Your task to perform on an android device: Is it going to rain today? Image 0: 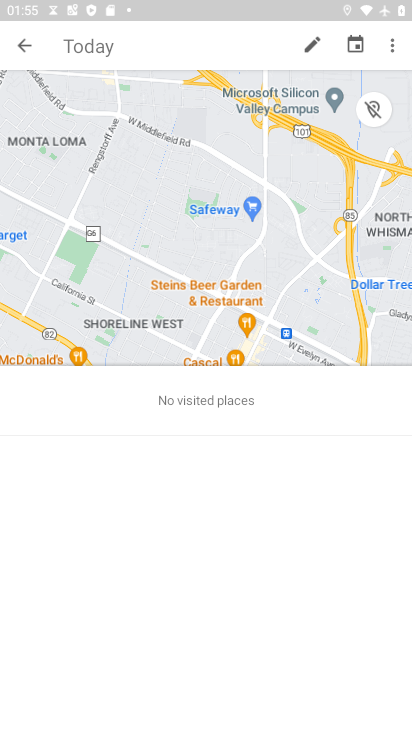
Step 0: press home button
Your task to perform on an android device: Is it going to rain today? Image 1: 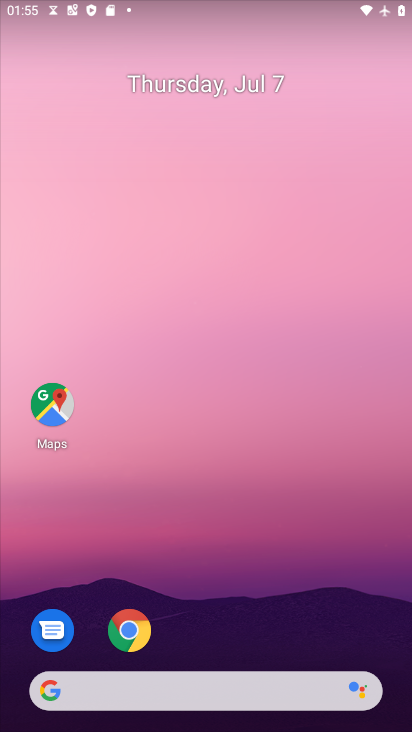
Step 1: click (133, 620)
Your task to perform on an android device: Is it going to rain today? Image 2: 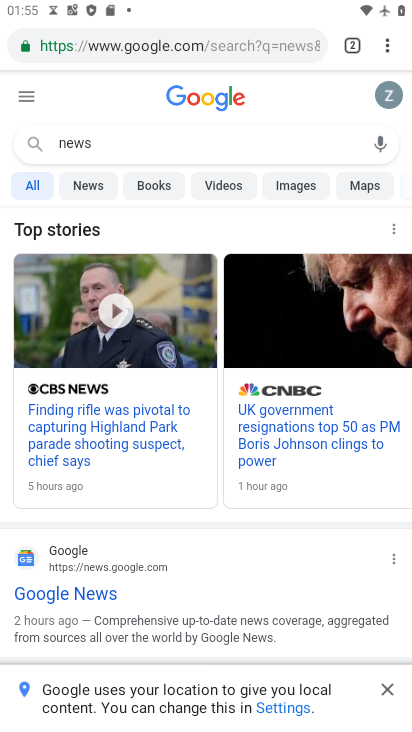
Step 2: click (220, 33)
Your task to perform on an android device: Is it going to rain today? Image 3: 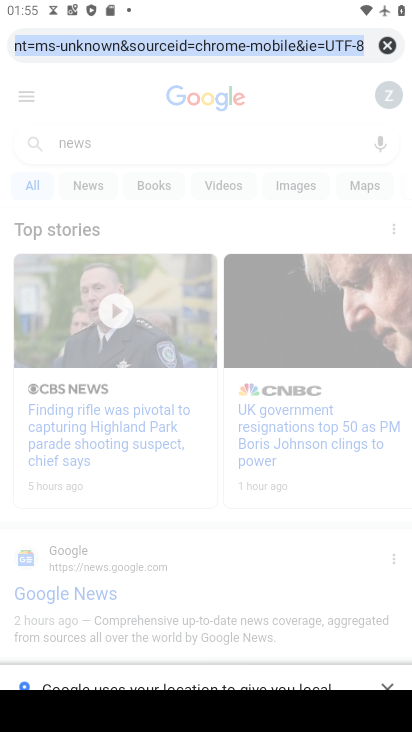
Step 3: type "Is it going to rain today?"
Your task to perform on an android device: Is it going to rain today? Image 4: 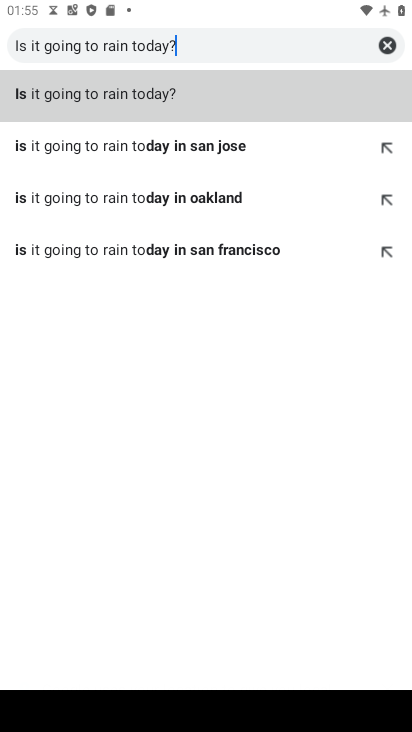
Step 4: click (166, 92)
Your task to perform on an android device: Is it going to rain today? Image 5: 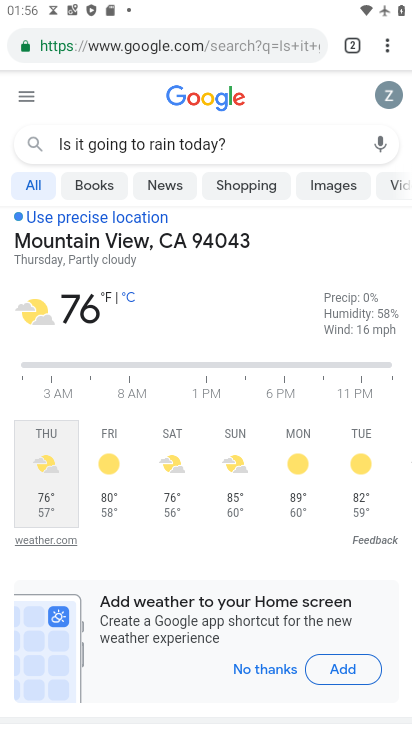
Step 5: task complete